Your task to perform on an android device: Is it going to rain this weekend? Image 0: 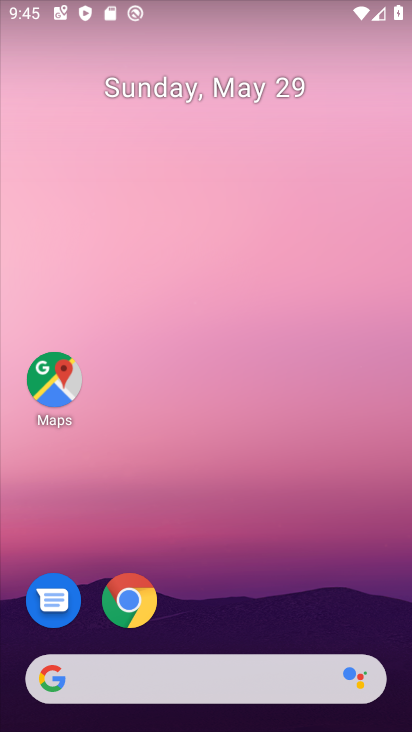
Step 0: drag from (176, 716) to (175, 73)
Your task to perform on an android device: Is it going to rain this weekend? Image 1: 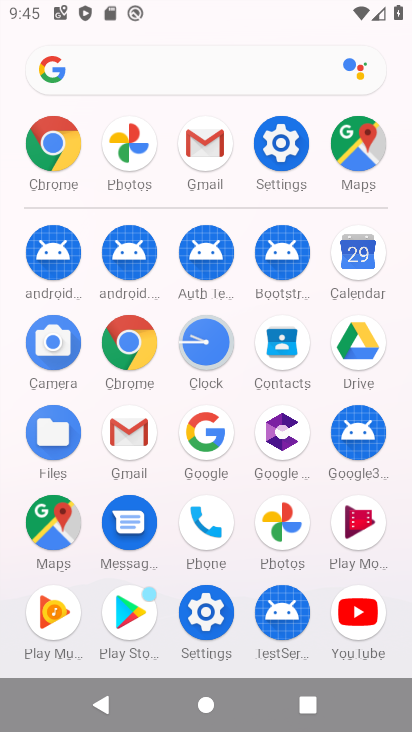
Step 1: click (216, 431)
Your task to perform on an android device: Is it going to rain this weekend? Image 2: 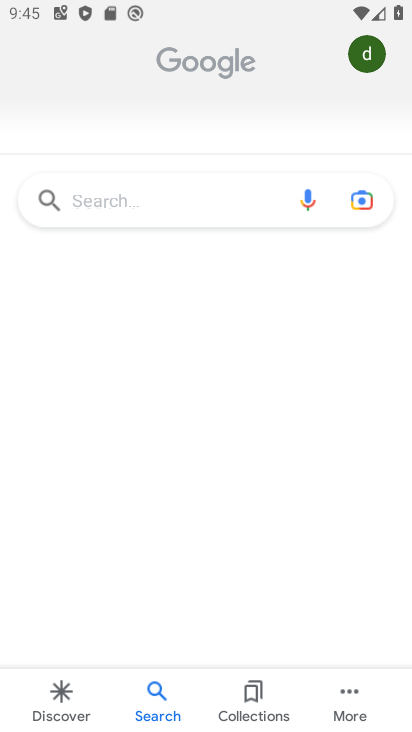
Step 2: click (191, 195)
Your task to perform on an android device: Is it going to rain this weekend? Image 3: 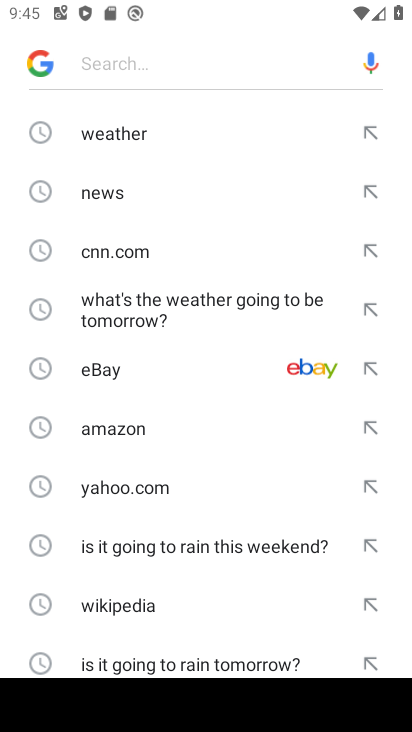
Step 3: click (111, 127)
Your task to perform on an android device: Is it going to rain this weekend? Image 4: 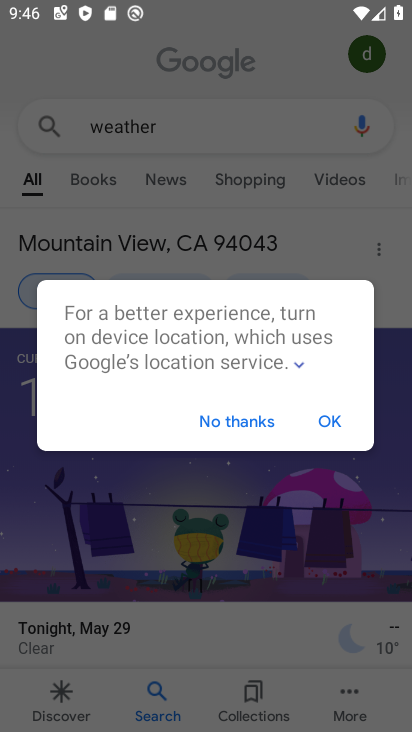
Step 4: click (338, 414)
Your task to perform on an android device: Is it going to rain this weekend? Image 5: 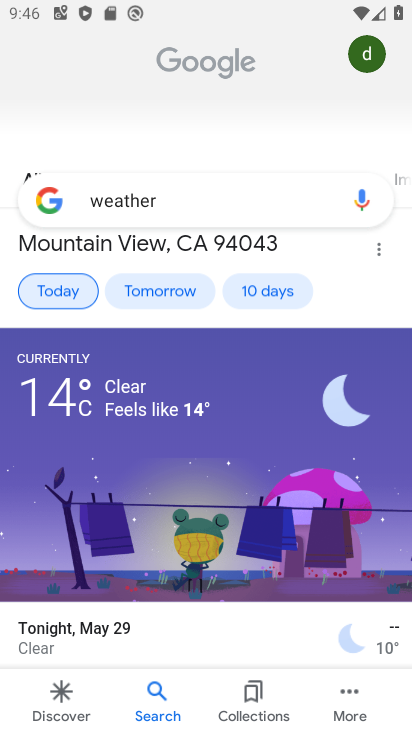
Step 5: click (277, 284)
Your task to perform on an android device: Is it going to rain this weekend? Image 6: 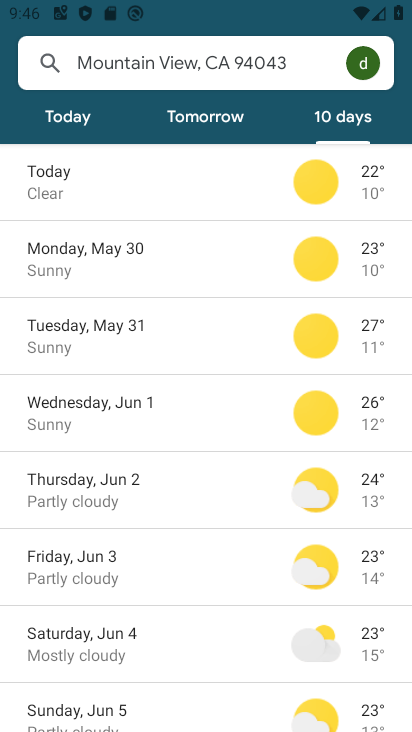
Step 6: click (87, 633)
Your task to perform on an android device: Is it going to rain this weekend? Image 7: 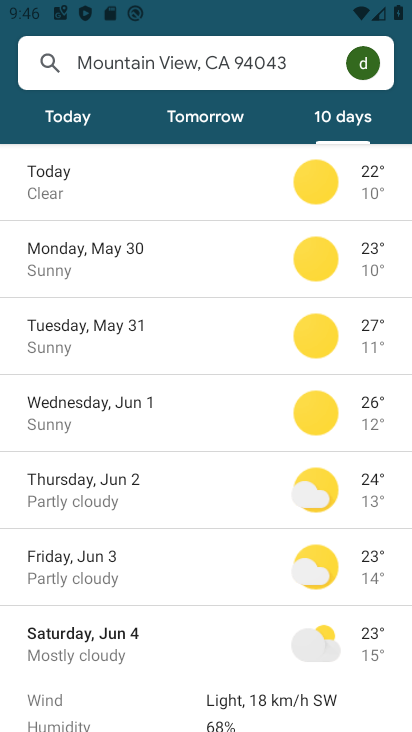
Step 7: task complete